Your task to perform on an android device: Open Android settings Image 0: 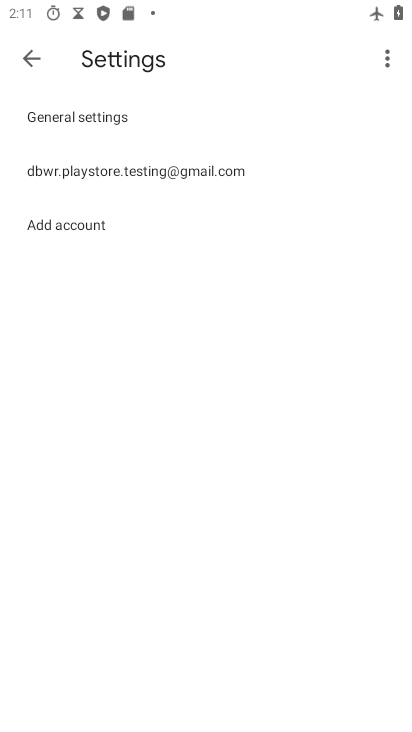
Step 0: press home button
Your task to perform on an android device: Open Android settings Image 1: 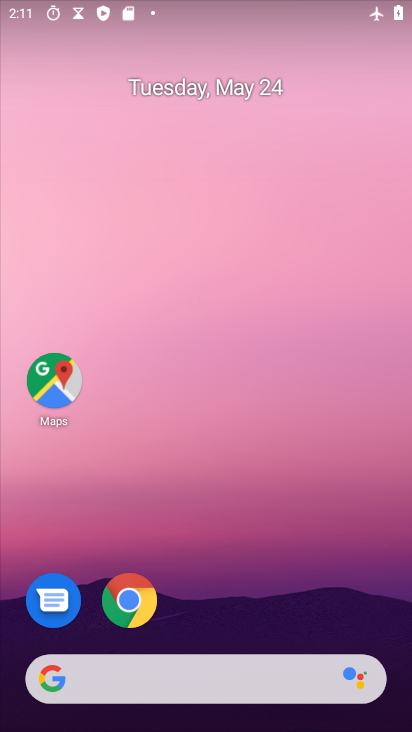
Step 1: drag from (296, 590) to (189, 12)
Your task to perform on an android device: Open Android settings Image 2: 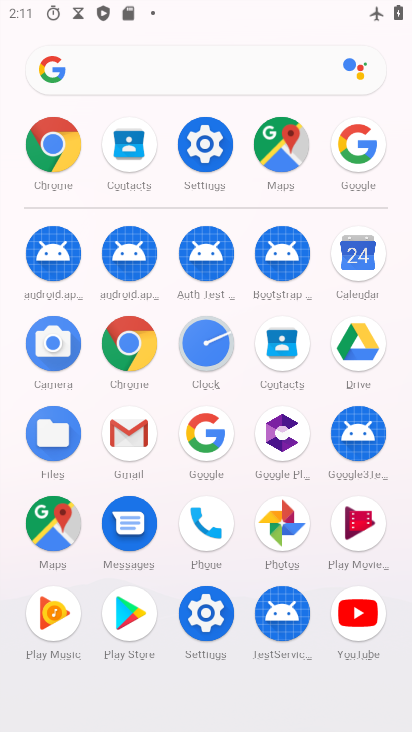
Step 2: click (206, 606)
Your task to perform on an android device: Open Android settings Image 3: 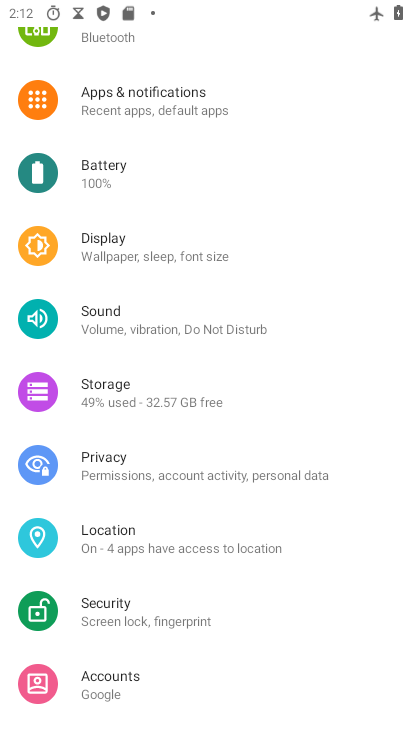
Step 3: drag from (252, 671) to (228, 150)
Your task to perform on an android device: Open Android settings Image 4: 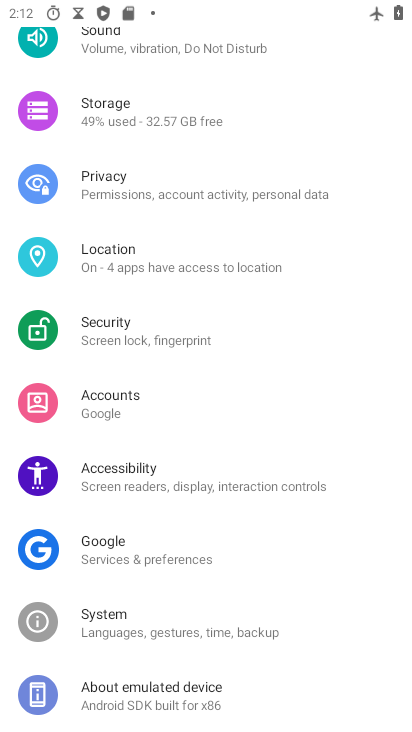
Step 4: click (222, 699)
Your task to perform on an android device: Open Android settings Image 5: 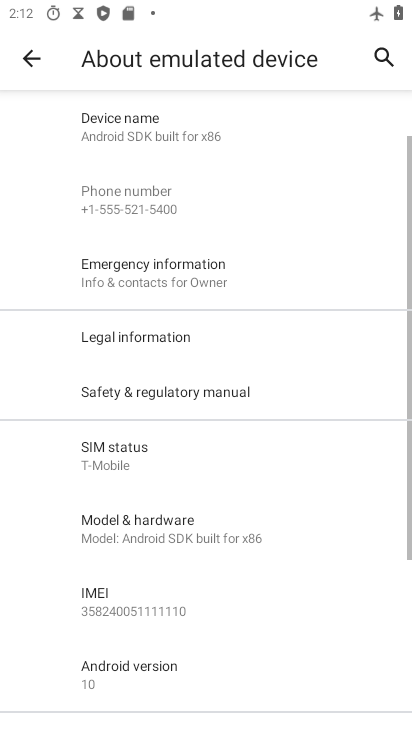
Step 5: click (211, 683)
Your task to perform on an android device: Open Android settings Image 6: 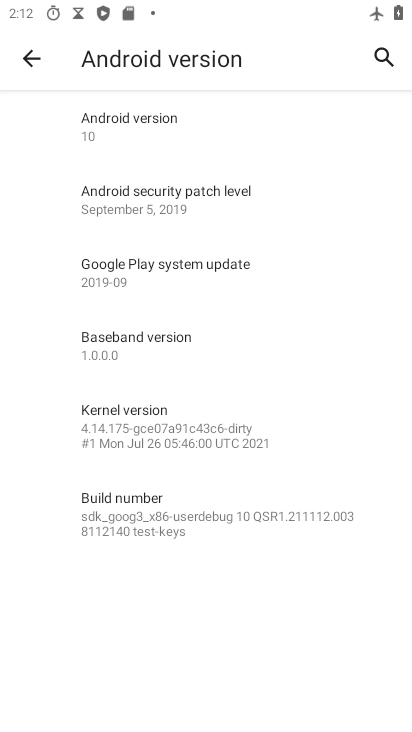
Step 6: task complete